Your task to perform on an android device: Clear all items from cart on walmart. Add "asus zenbook" to the cart on walmart Image 0: 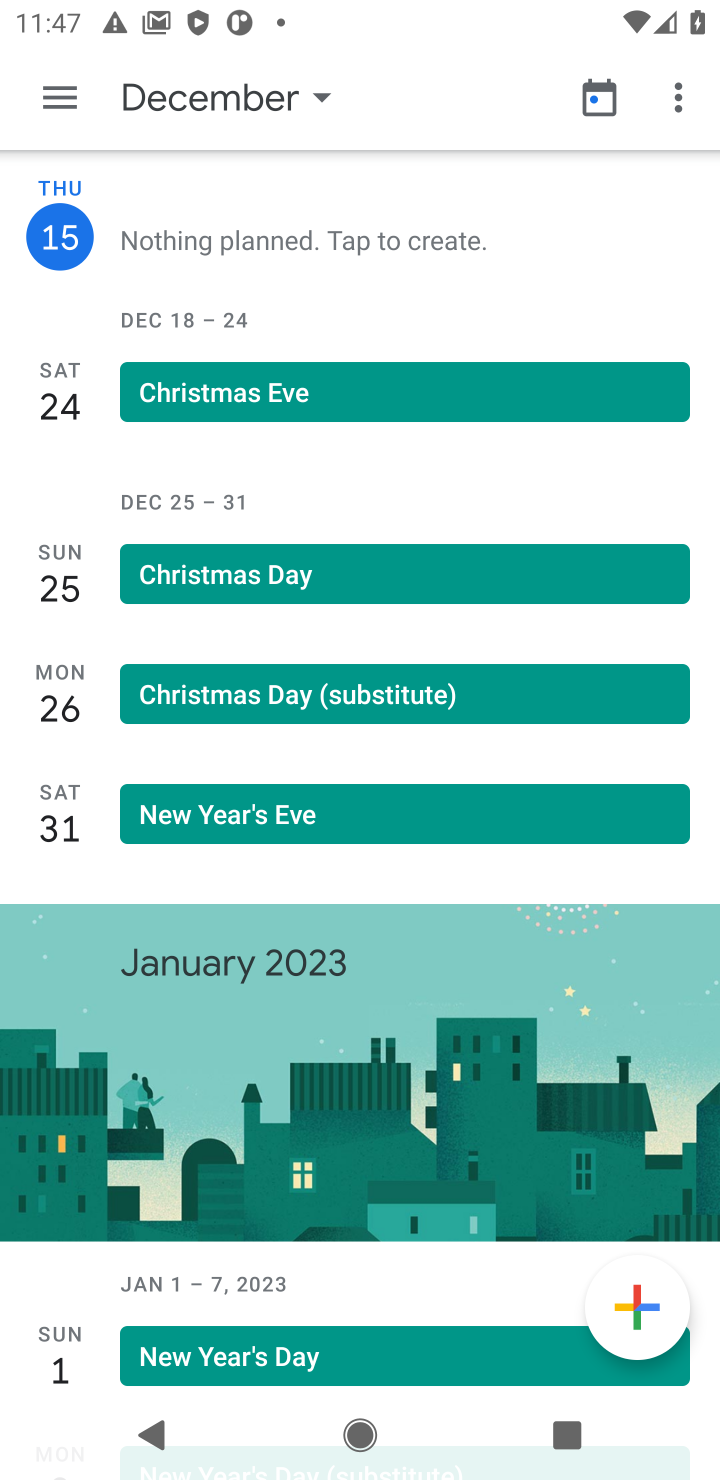
Step 0: press home button
Your task to perform on an android device: Clear all items from cart on walmart. Add "asus zenbook" to the cart on walmart Image 1: 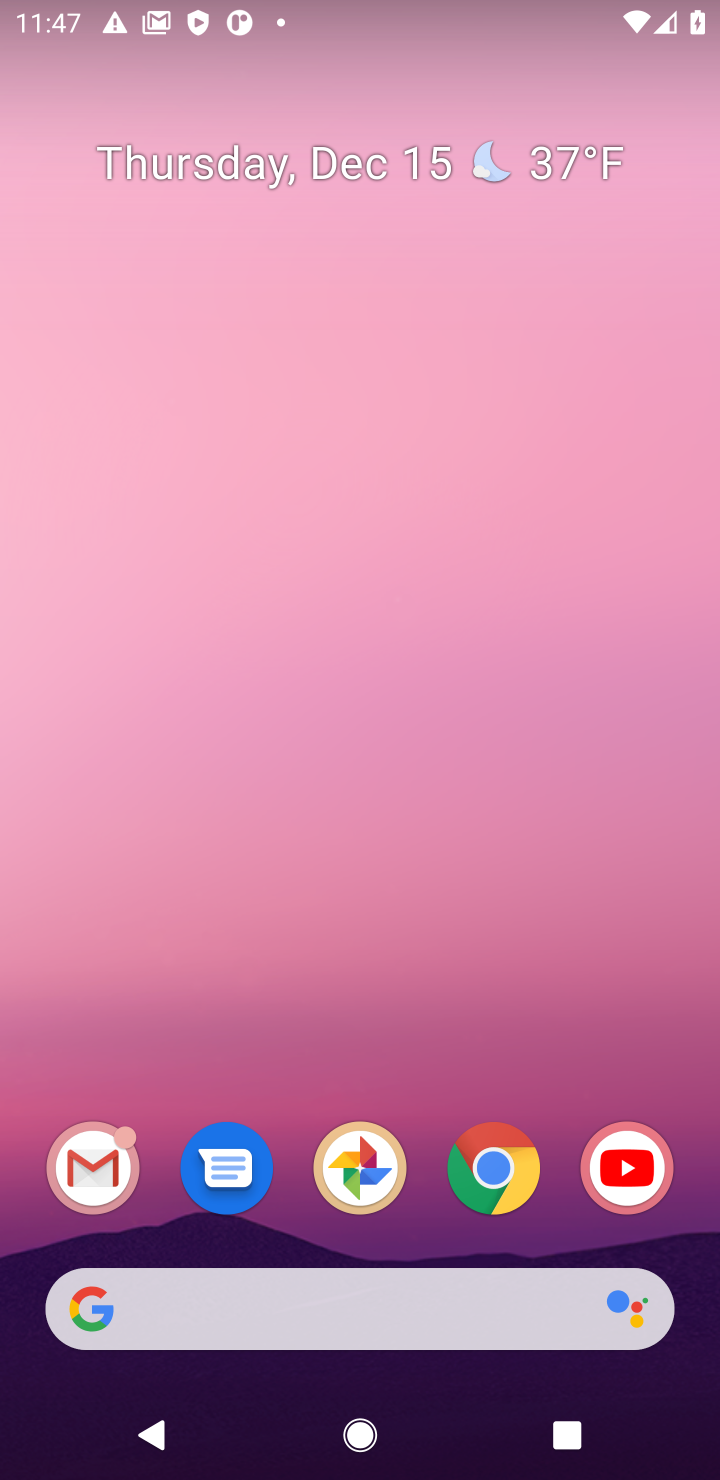
Step 1: click (505, 1148)
Your task to perform on an android device: Clear all items from cart on walmart. Add "asus zenbook" to the cart on walmart Image 2: 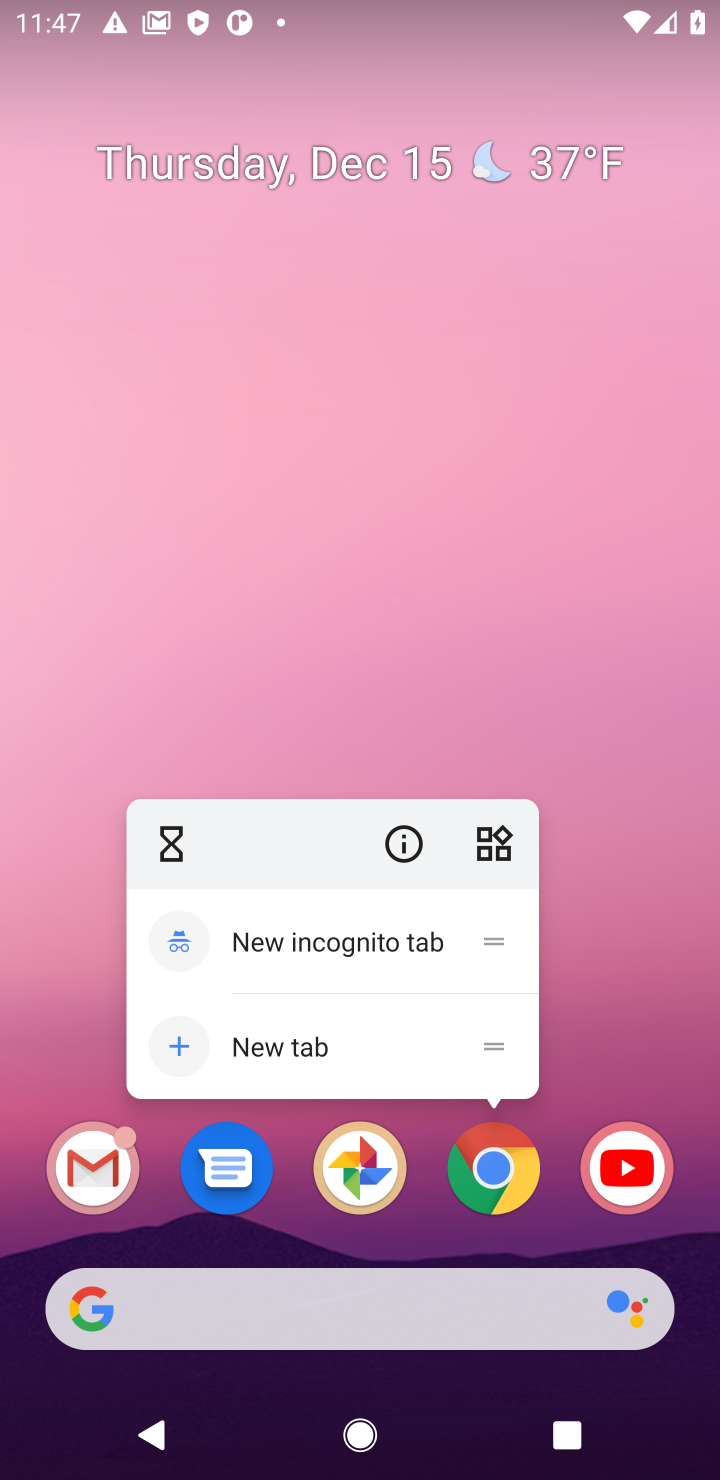
Step 2: click (493, 1149)
Your task to perform on an android device: Clear all items from cart on walmart. Add "asus zenbook" to the cart on walmart Image 3: 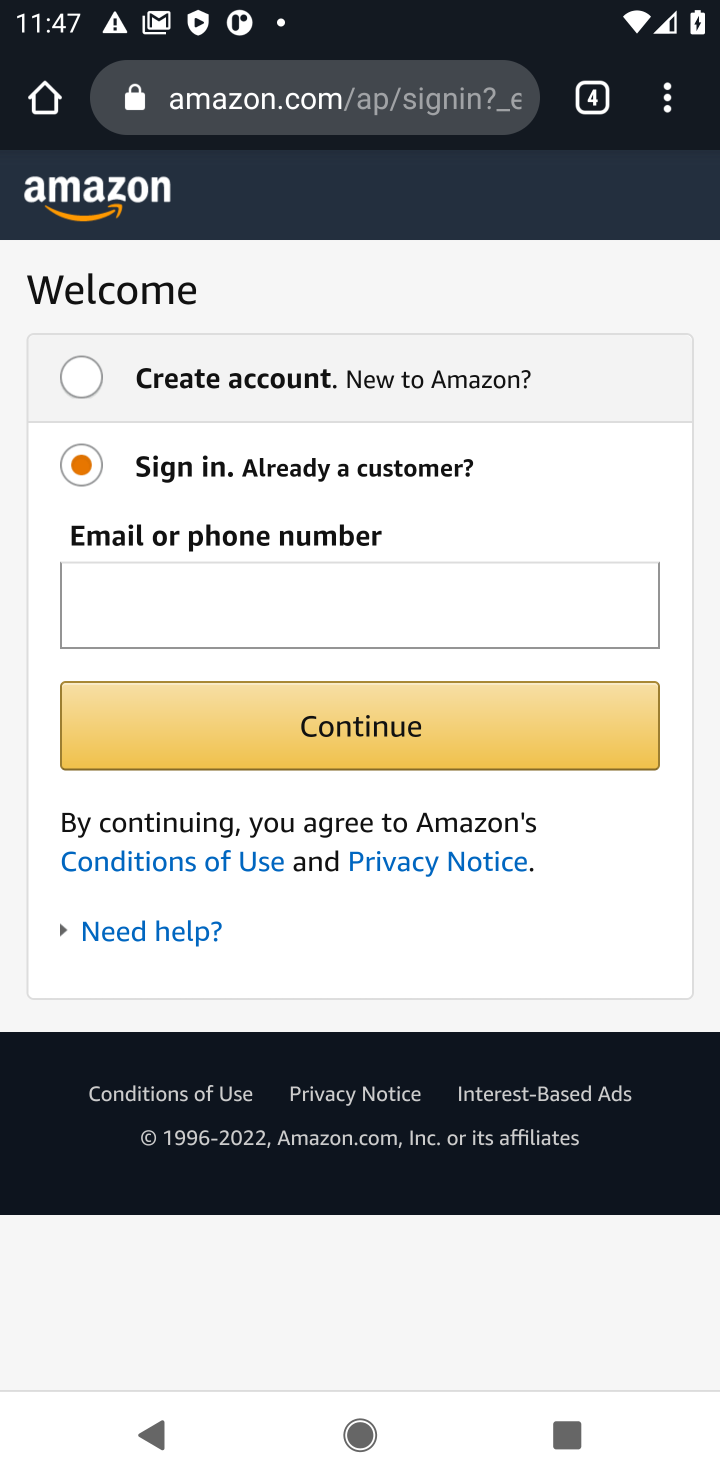
Step 3: click (296, 100)
Your task to perform on an android device: Clear all items from cart on walmart. Add "asus zenbook" to the cart on walmart Image 4: 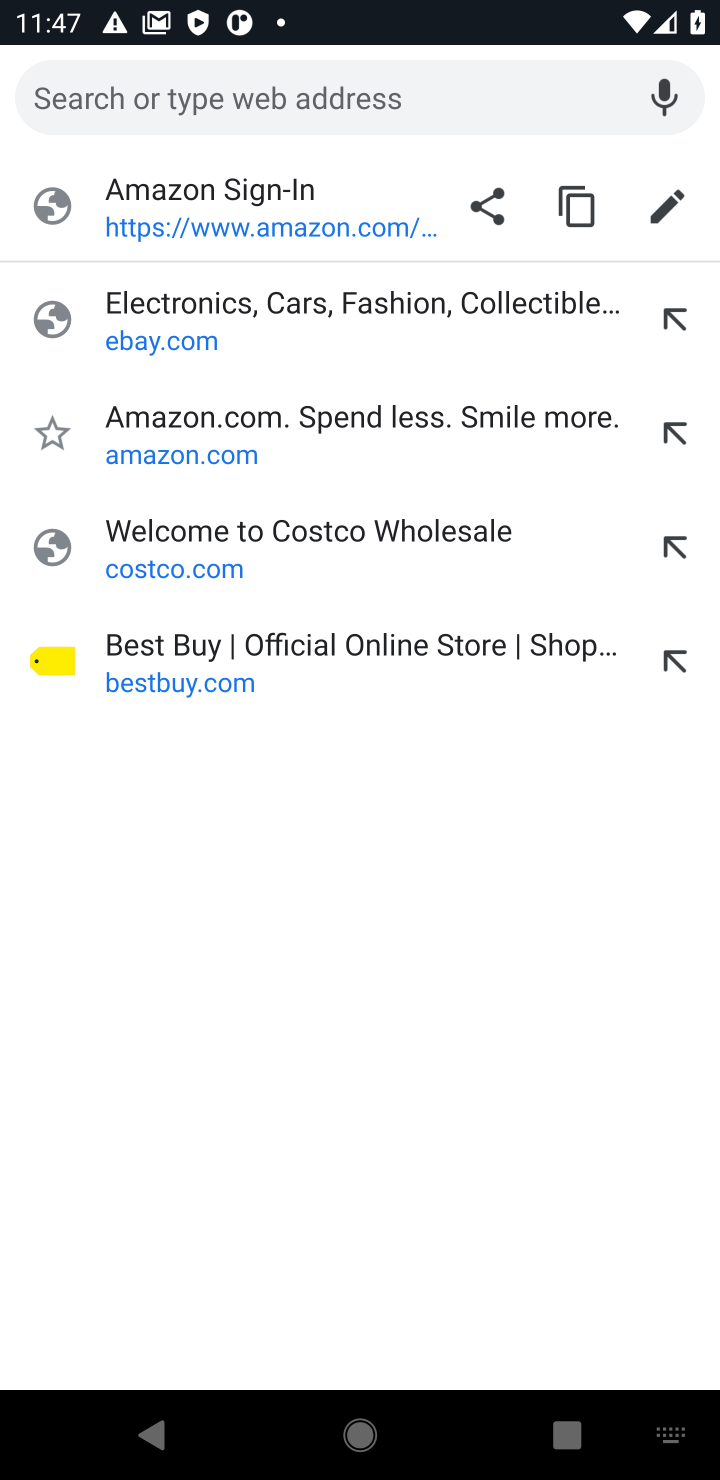
Step 4: type "walmart"
Your task to perform on an android device: Clear all items from cart on walmart. Add "asus zenbook" to the cart on walmart Image 5: 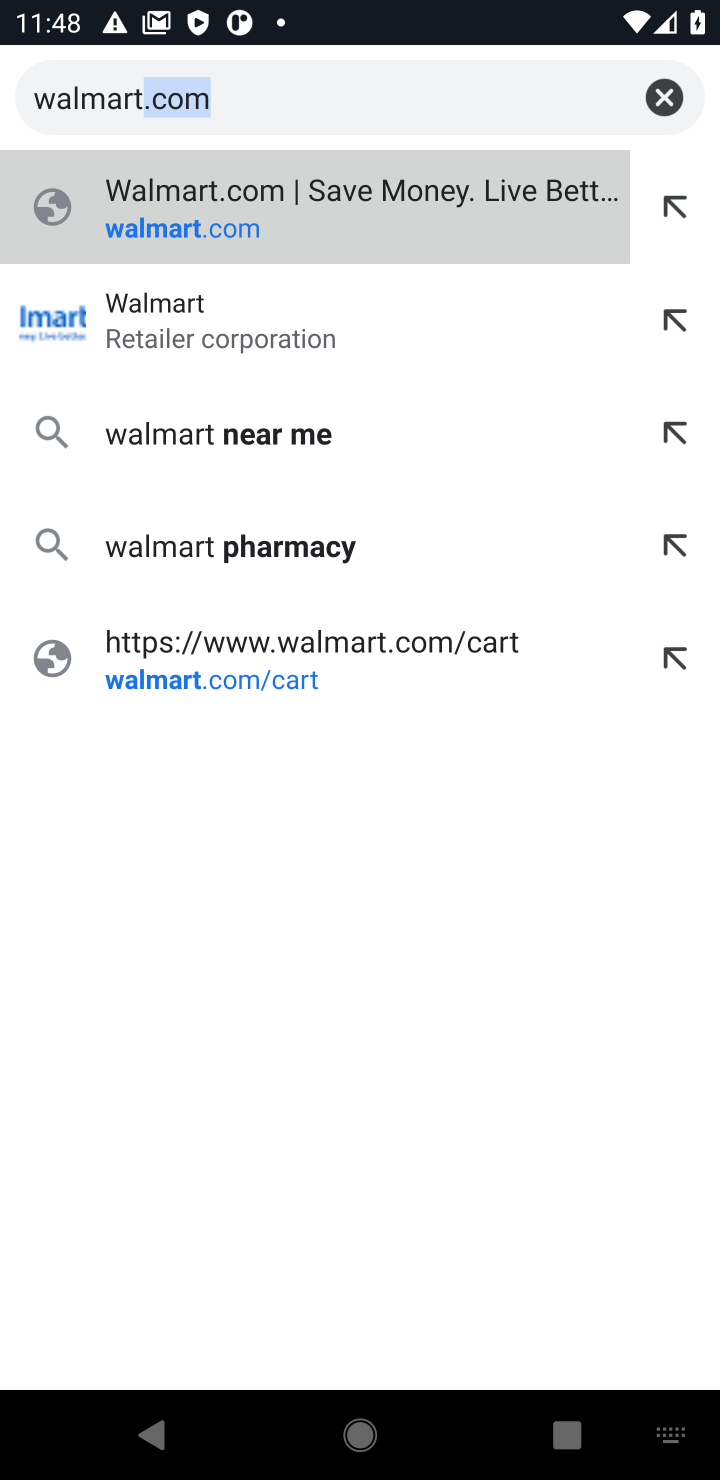
Step 5: click (305, 231)
Your task to perform on an android device: Clear all items from cart on walmart. Add "asus zenbook" to the cart on walmart Image 6: 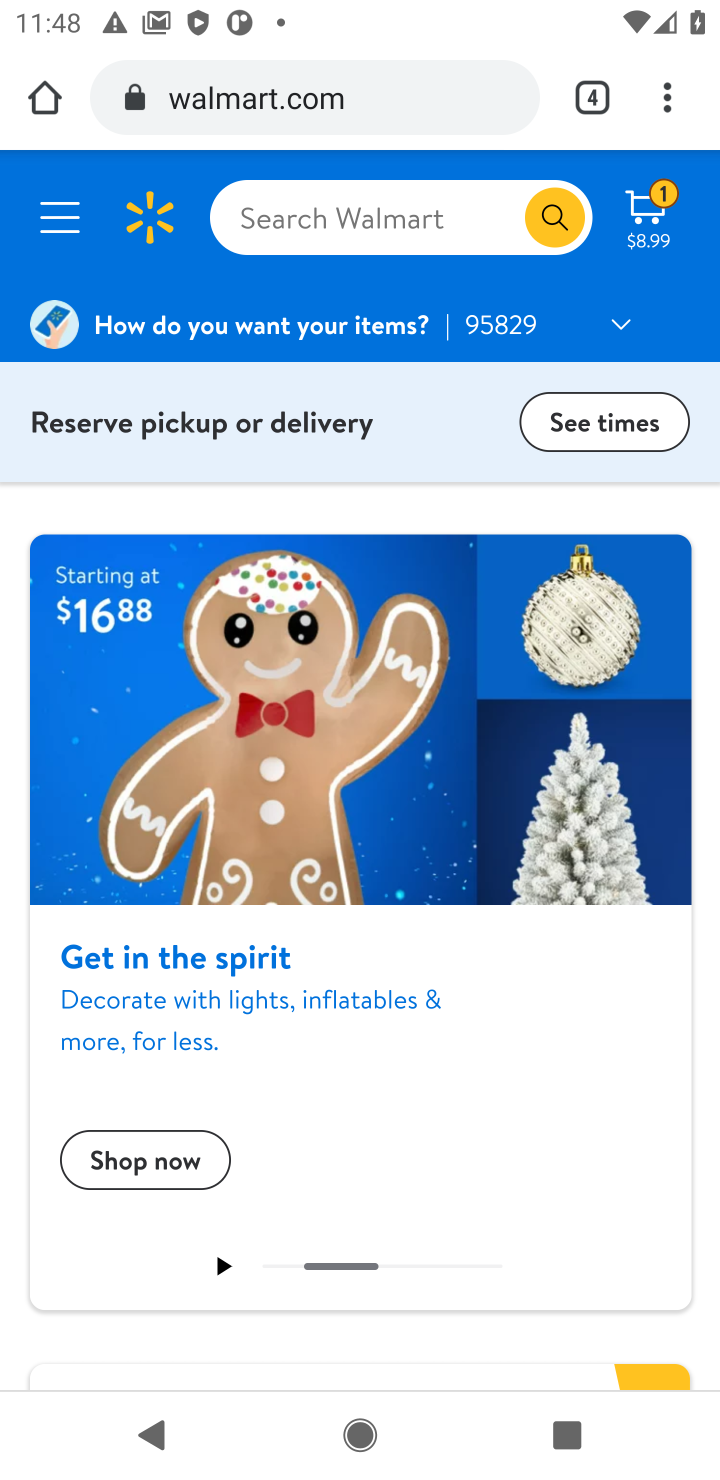
Step 6: click (643, 203)
Your task to perform on an android device: Clear all items from cart on walmart. Add "asus zenbook" to the cart on walmart Image 7: 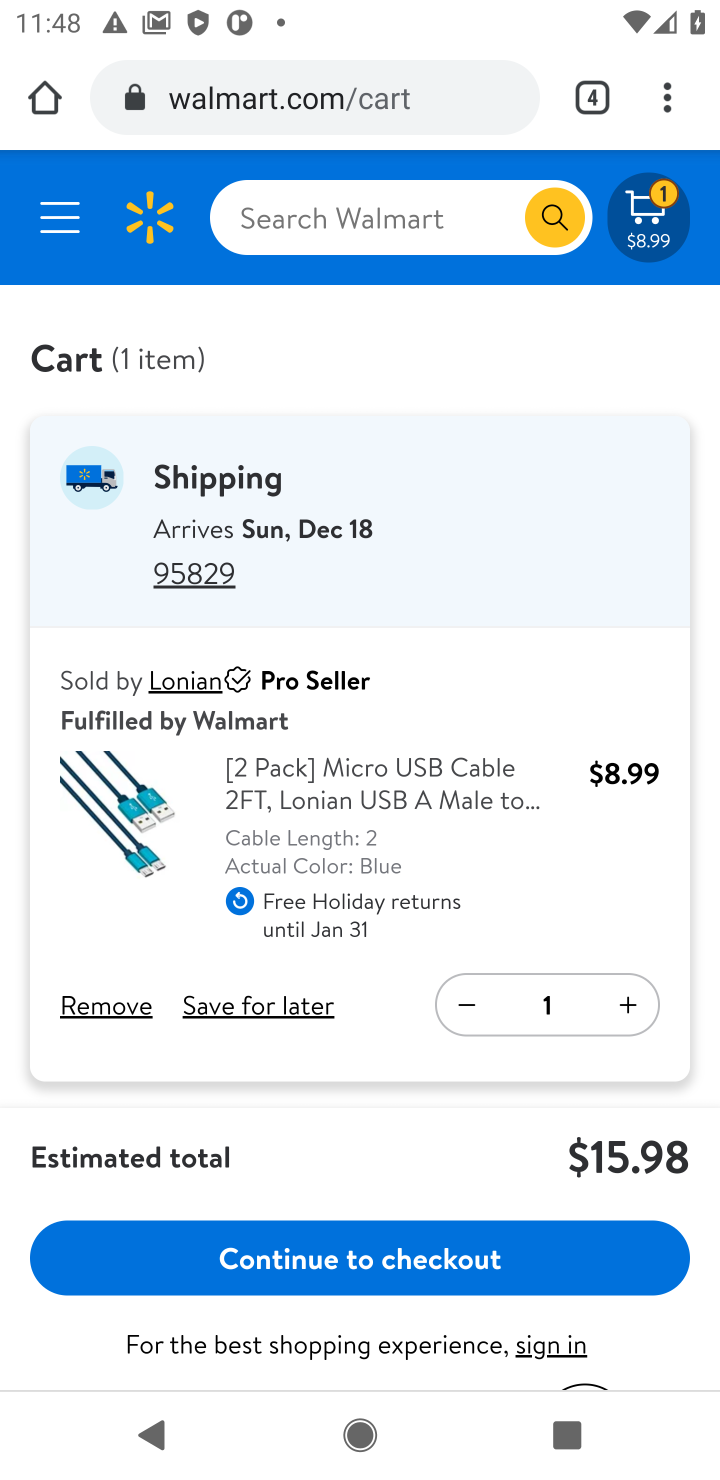
Step 7: click (105, 1019)
Your task to perform on an android device: Clear all items from cart on walmart. Add "asus zenbook" to the cart on walmart Image 8: 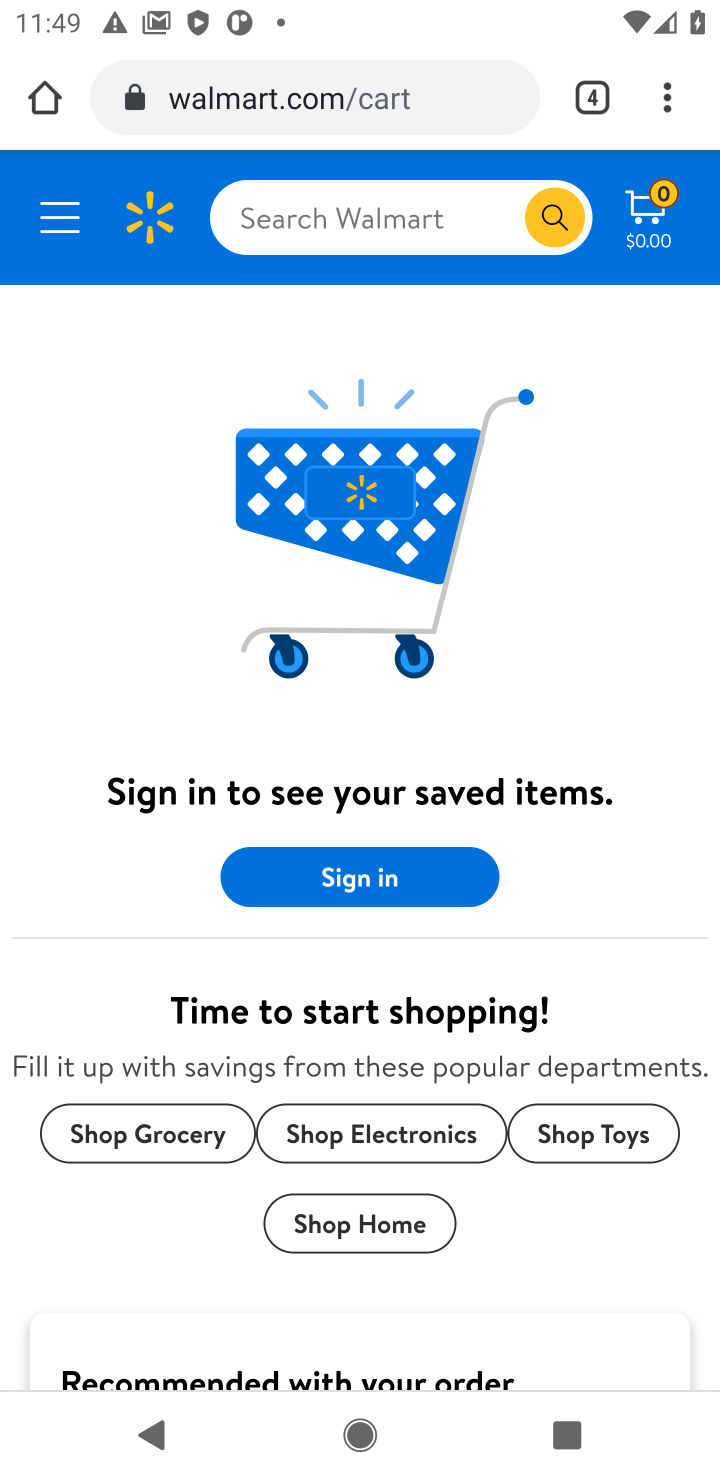
Step 8: click (344, 219)
Your task to perform on an android device: Clear all items from cart on walmart. Add "asus zenbook" to the cart on walmart Image 9: 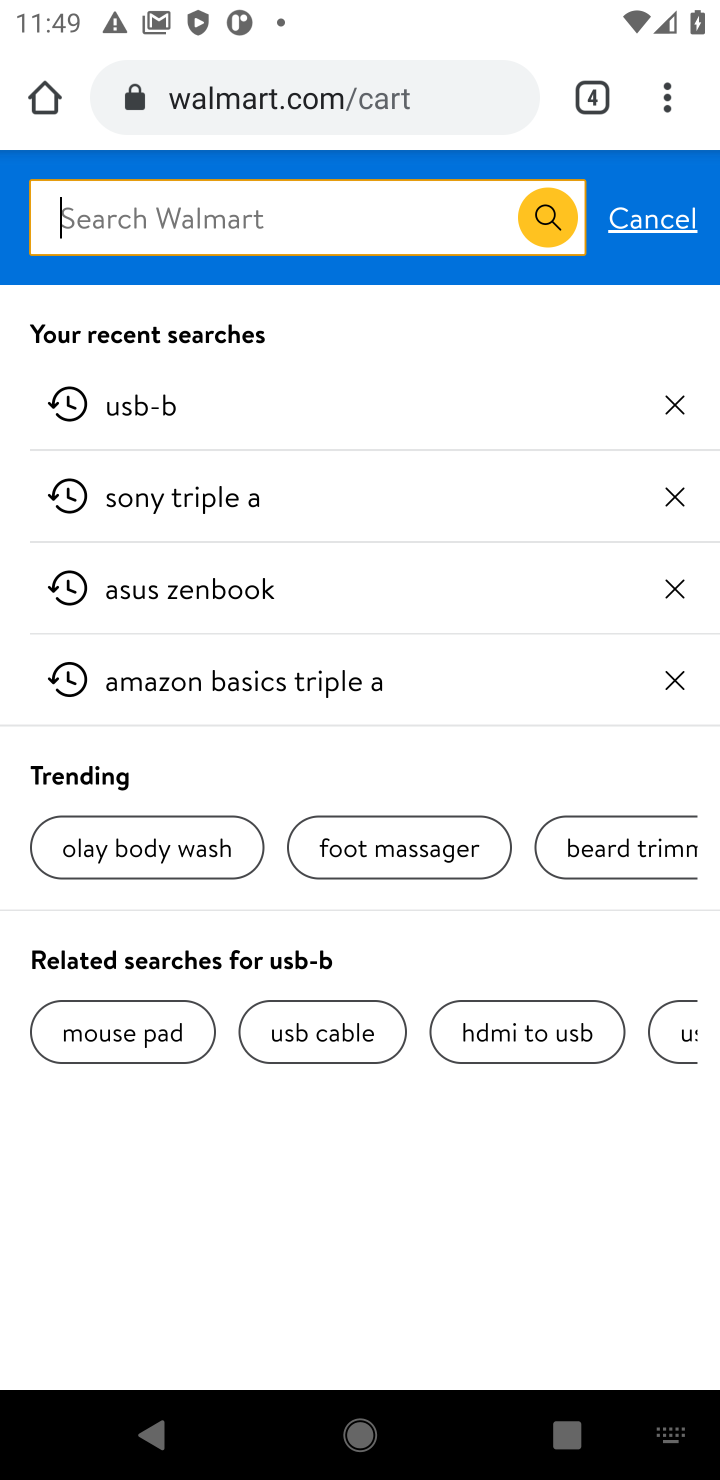
Step 9: type "asus zenbook"
Your task to perform on an android device: Clear all items from cart on walmart. Add "asus zenbook" to the cart on walmart Image 10: 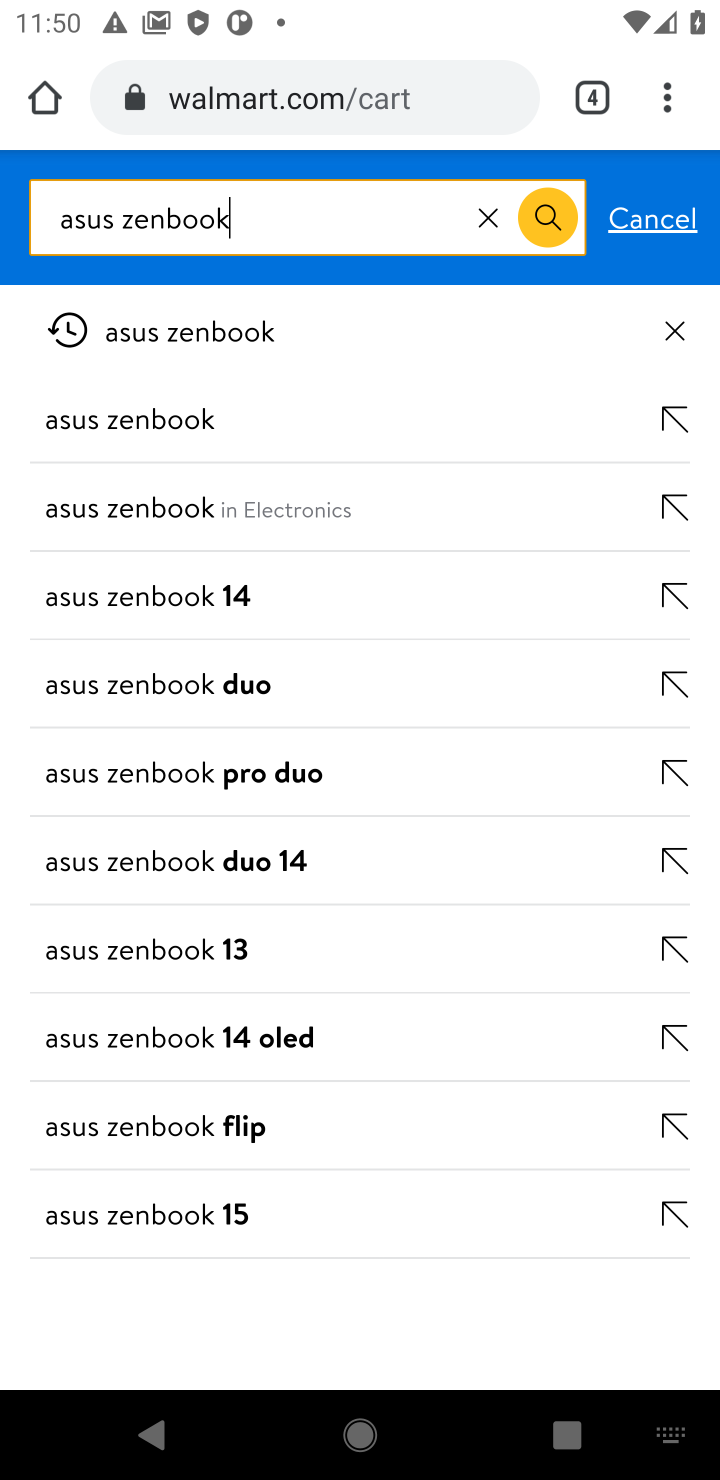
Step 10: click (282, 332)
Your task to perform on an android device: Clear all items from cart on walmart. Add "asus zenbook" to the cart on walmart Image 11: 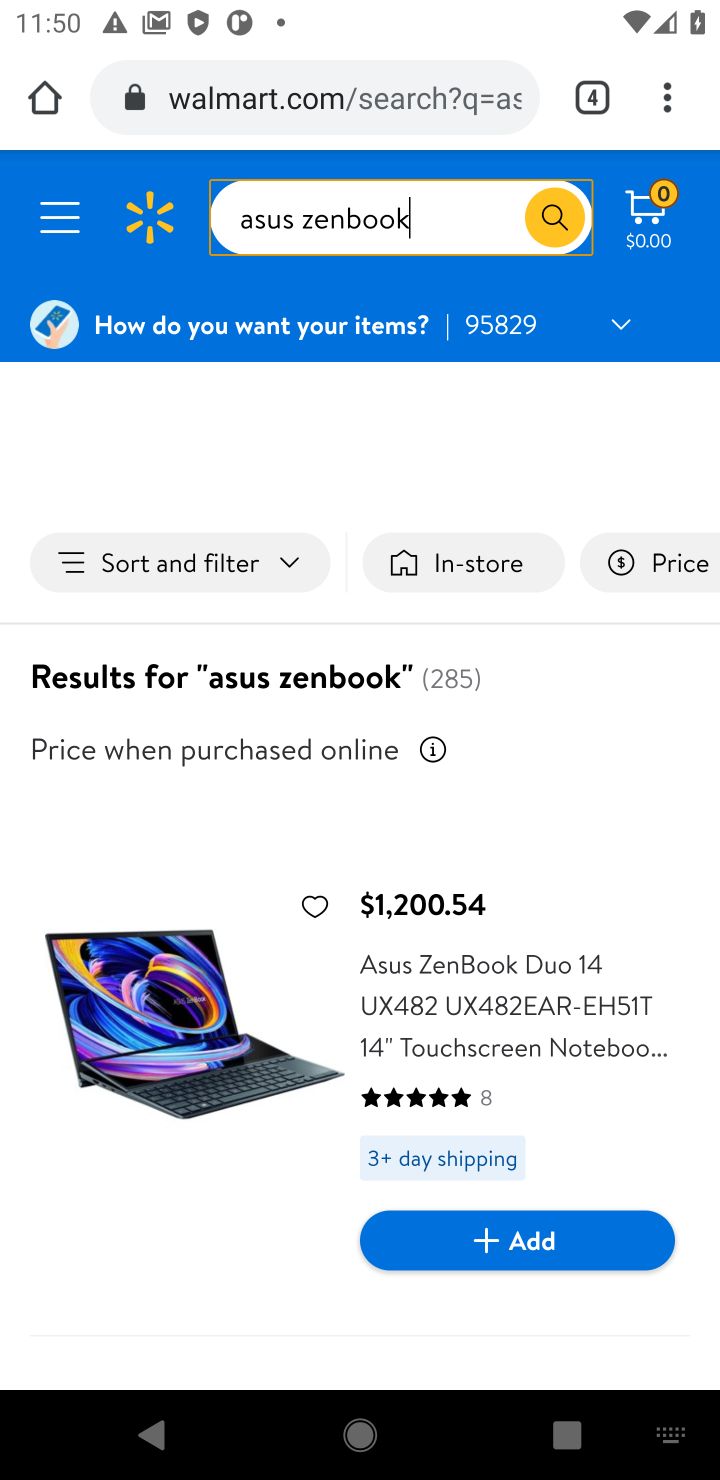
Step 11: click (544, 1243)
Your task to perform on an android device: Clear all items from cart on walmart. Add "asus zenbook" to the cart on walmart Image 12: 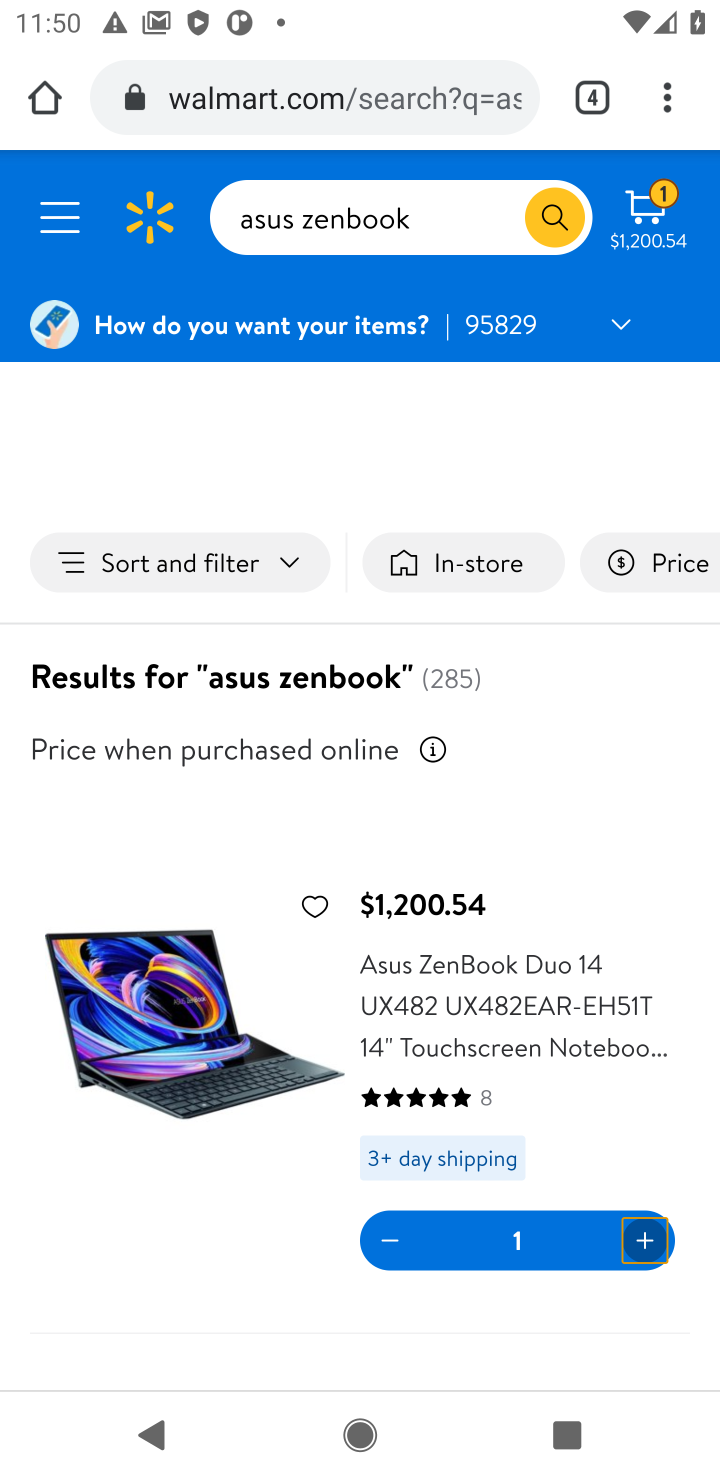
Step 12: task complete